Your task to perform on an android device: move an email to a new category in the gmail app Image 0: 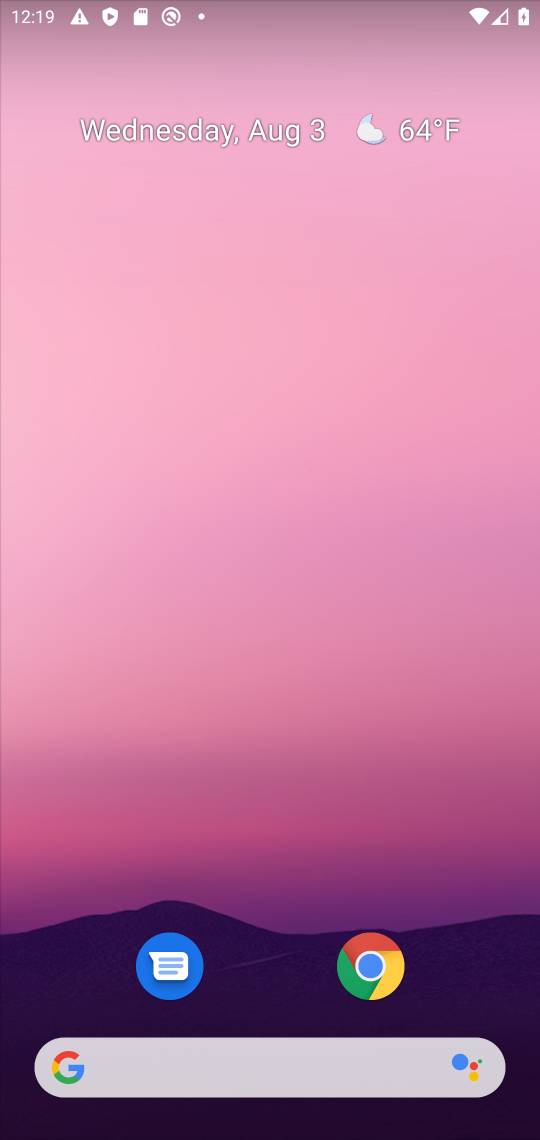
Step 0: drag from (255, 887) to (215, 267)
Your task to perform on an android device: move an email to a new category in the gmail app Image 1: 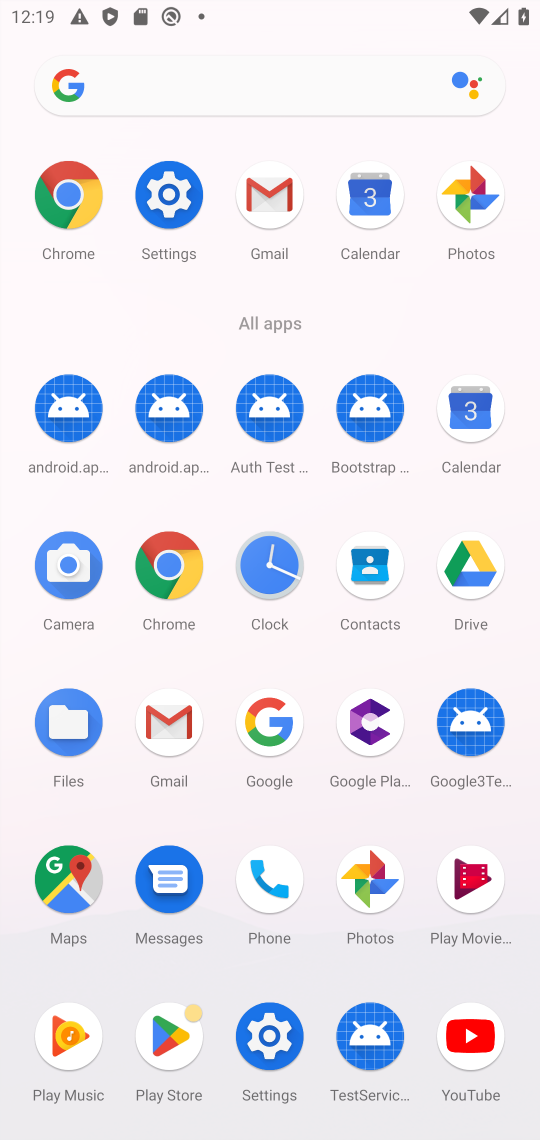
Step 1: click (277, 226)
Your task to perform on an android device: move an email to a new category in the gmail app Image 2: 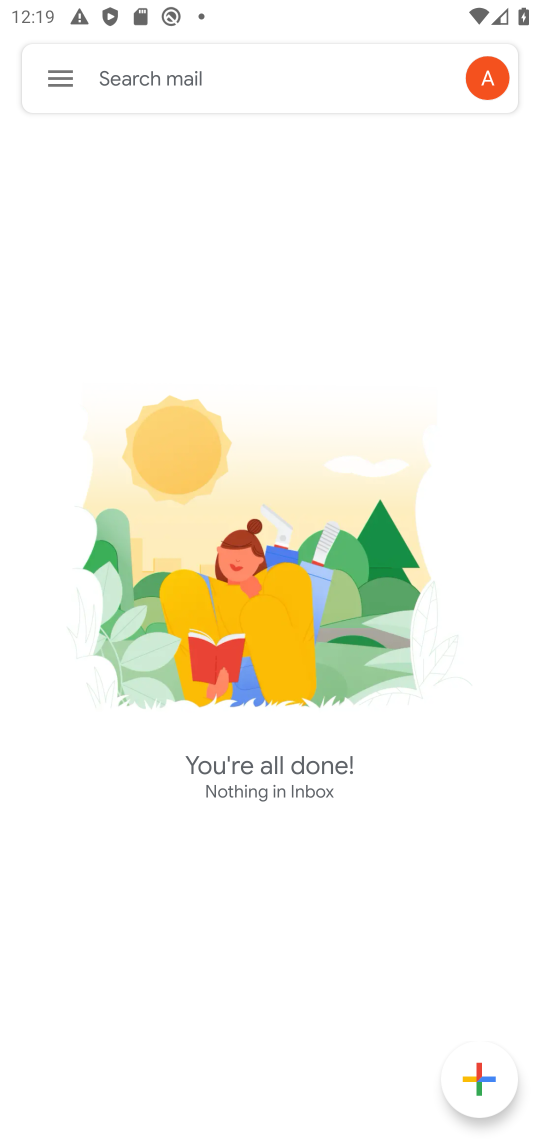
Step 2: click (45, 87)
Your task to perform on an android device: move an email to a new category in the gmail app Image 3: 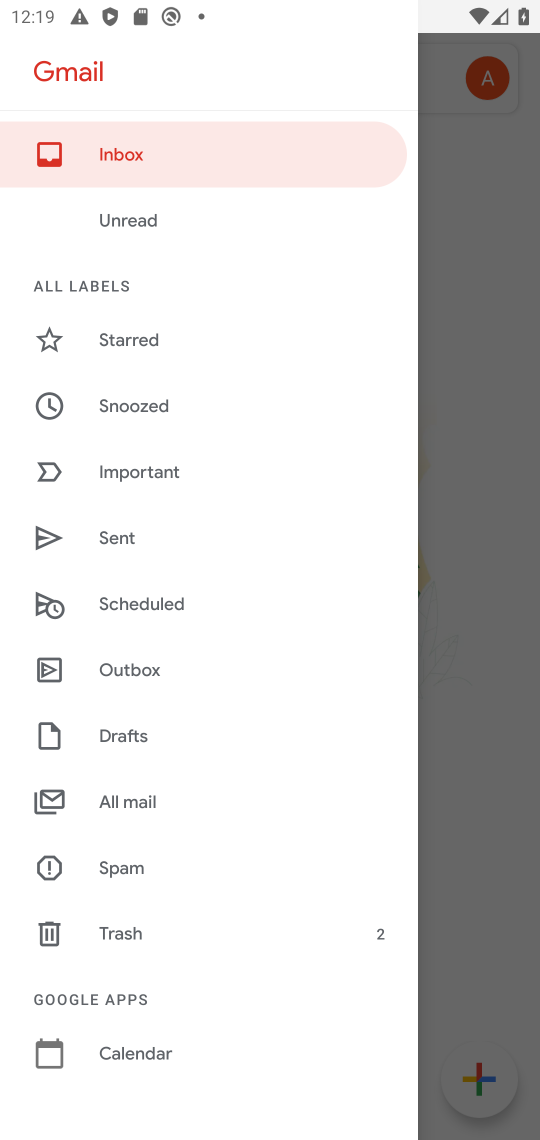
Step 3: click (116, 805)
Your task to perform on an android device: move an email to a new category in the gmail app Image 4: 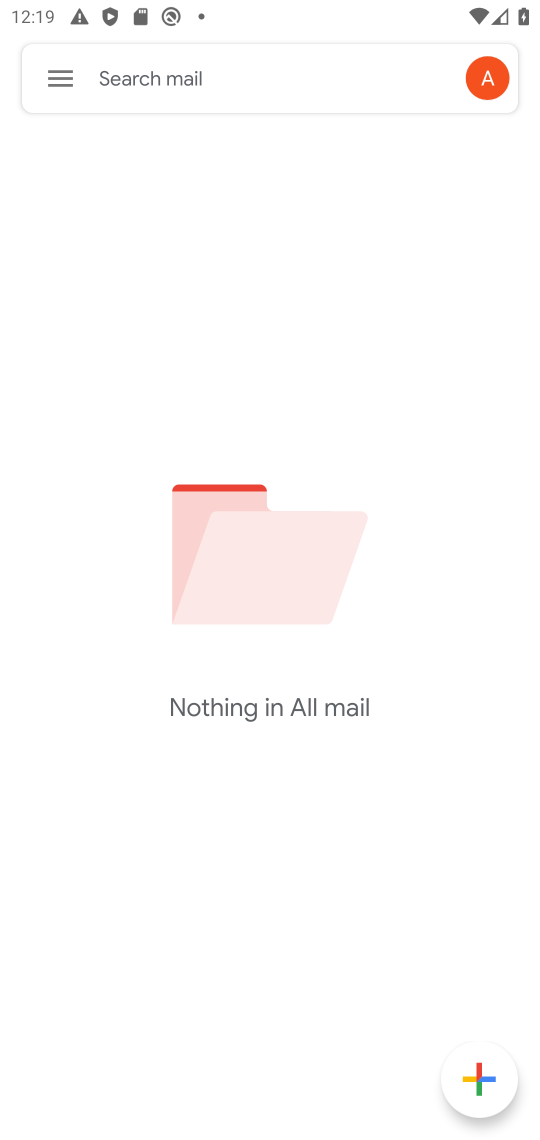
Step 4: task complete